Your task to perform on an android device: Open display settings Image 0: 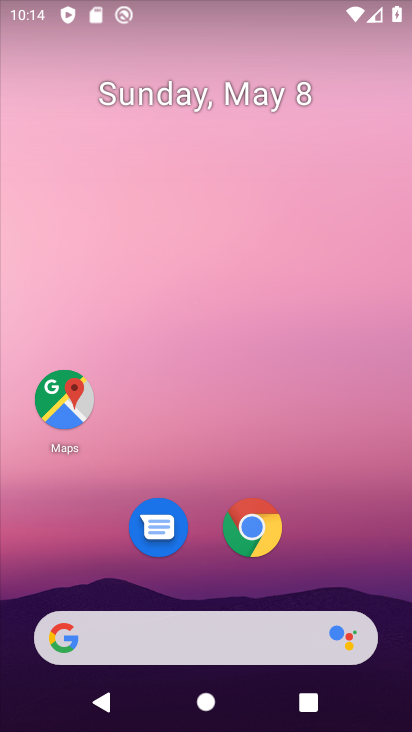
Step 0: drag from (356, 539) to (335, 78)
Your task to perform on an android device: Open display settings Image 1: 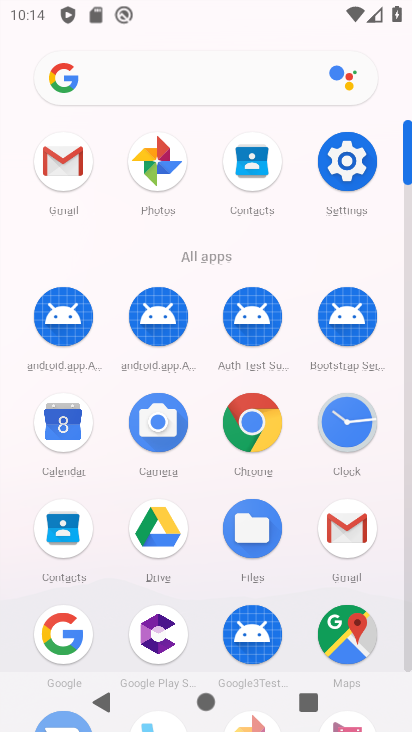
Step 1: click (354, 171)
Your task to perform on an android device: Open display settings Image 2: 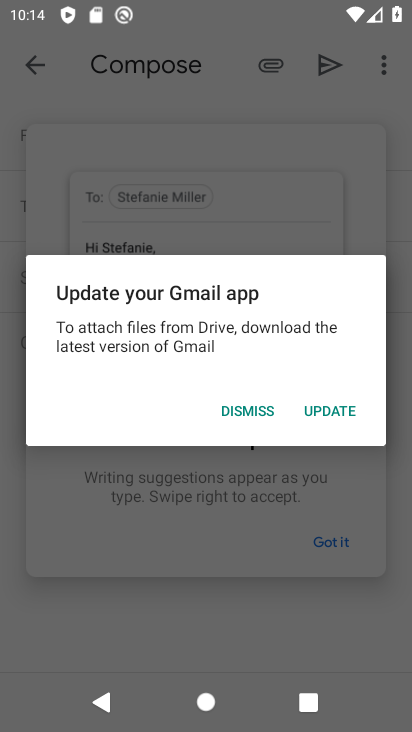
Step 2: press home button
Your task to perform on an android device: Open display settings Image 3: 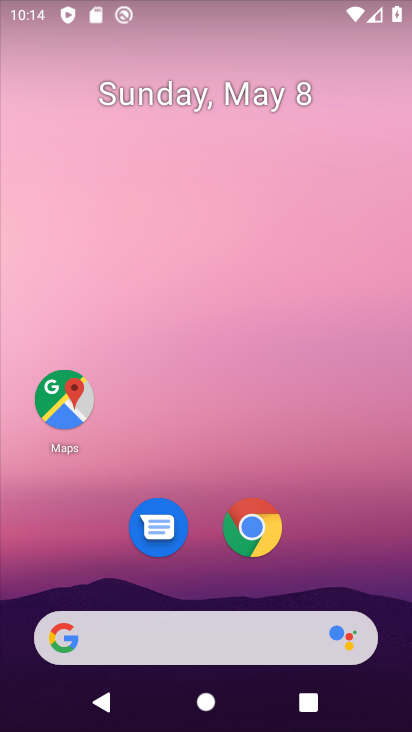
Step 3: drag from (366, 532) to (348, 193)
Your task to perform on an android device: Open display settings Image 4: 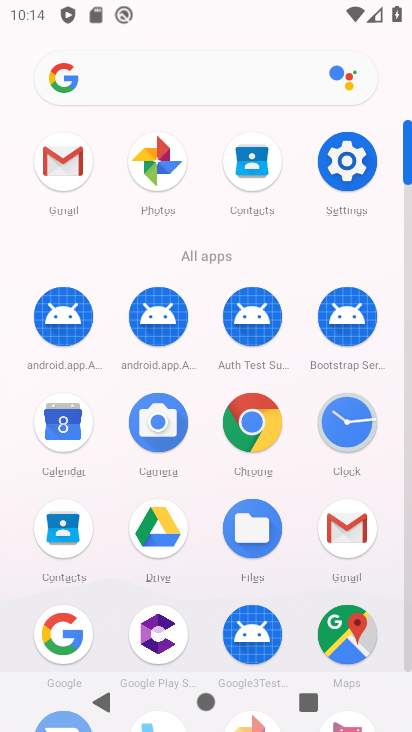
Step 4: click (351, 157)
Your task to perform on an android device: Open display settings Image 5: 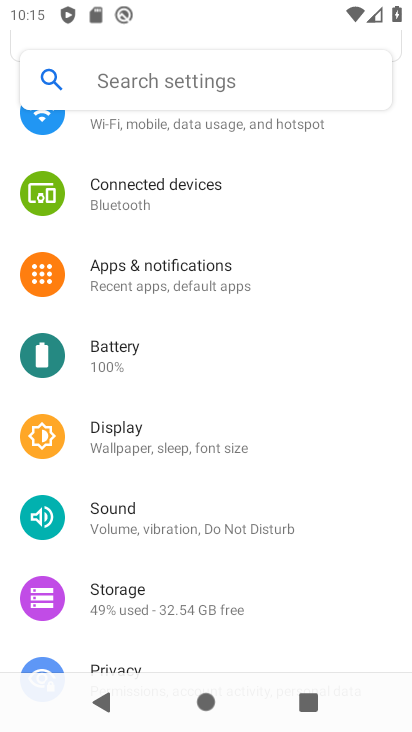
Step 5: click (189, 447)
Your task to perform on an android device: Open display settings Image 6: 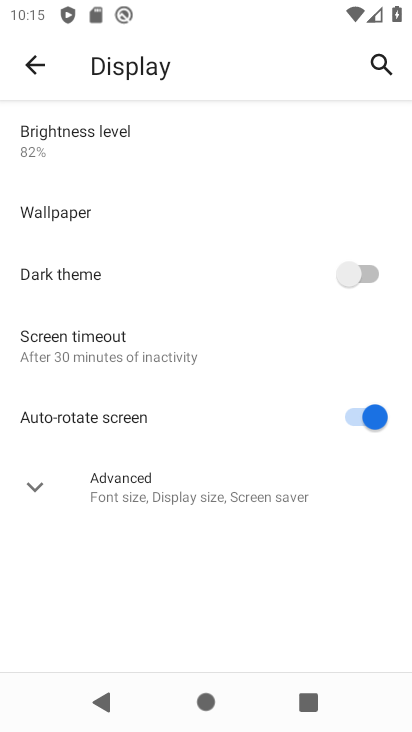
Step 6: task complete